Your task to perform on an android device: uninstall "YouTube Kids" Image 0: 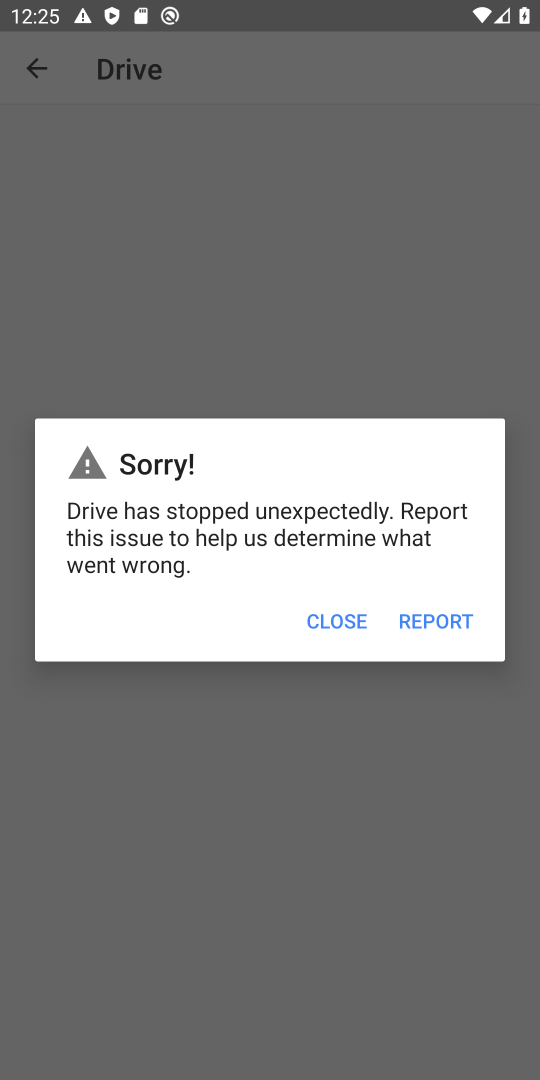
Step 0: press home button
Your task to perform on an android device: uninstall "YouTube Kids" Image 1: 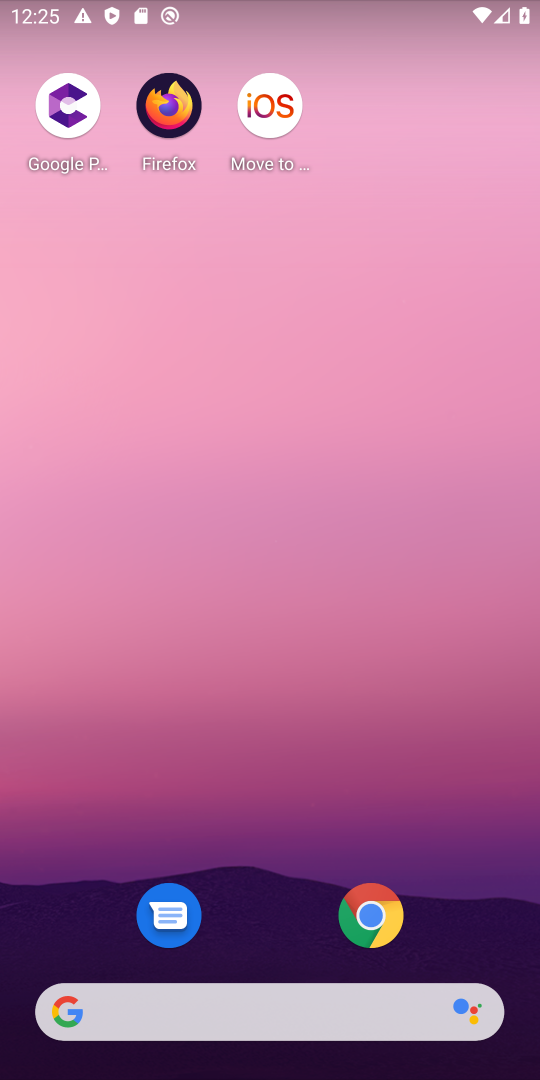
Step 1: drag from (256, 950) to (255, 271)
Your task to perform on an android device: uninstall "YouTube Kids" Image 2: 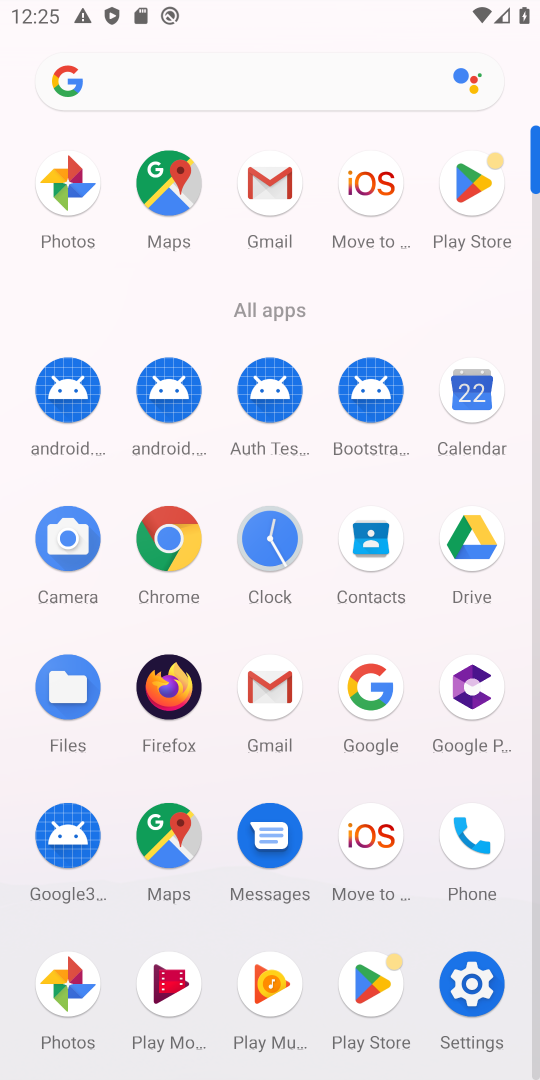
Step 2: click (363, 988)
Your task to perform on an android device: uninstall "YouTube Kids" Image 3: 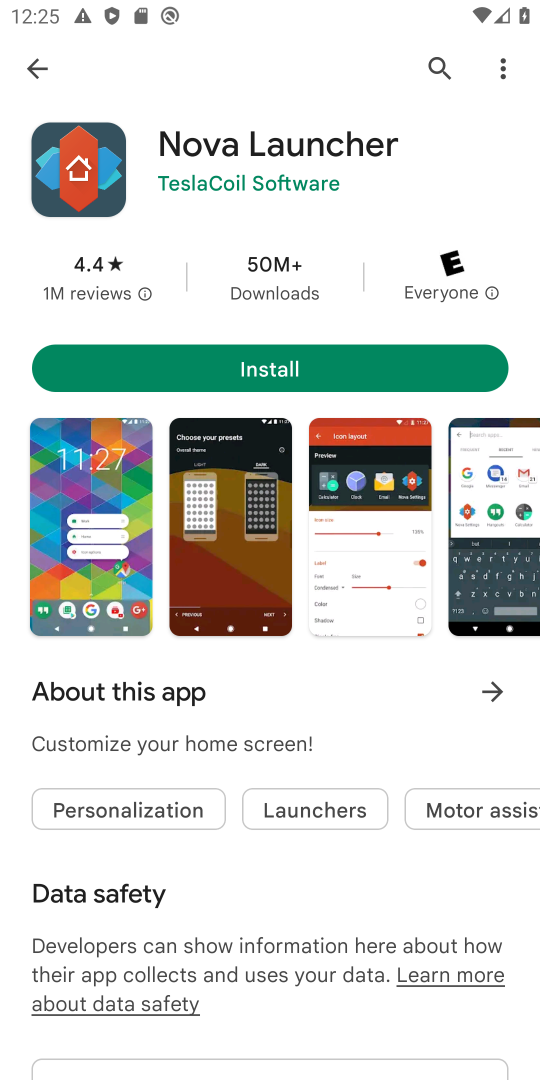
Step 3: click (42, 53)
Your task to perform on an android device: uninstall "YouTube Kids" Image 4: 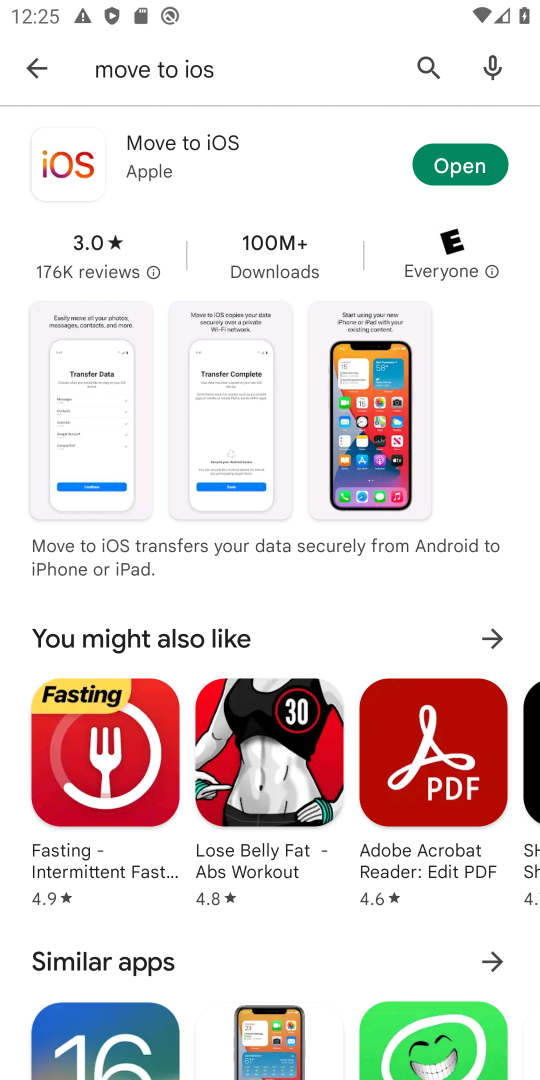
Step 4: click (430, 58)
Your task to perform on an android device: uninstall "YouTube Kids" Image 5: 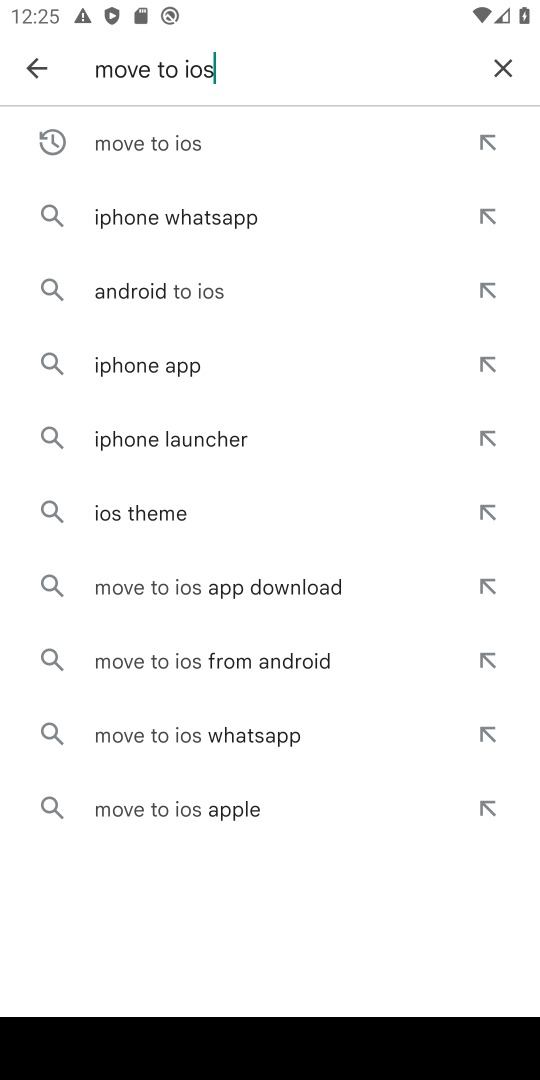
Step 5: click (504, 60)
Your task to perform on an android device: uninstall "YouTube Kids" Image 6: 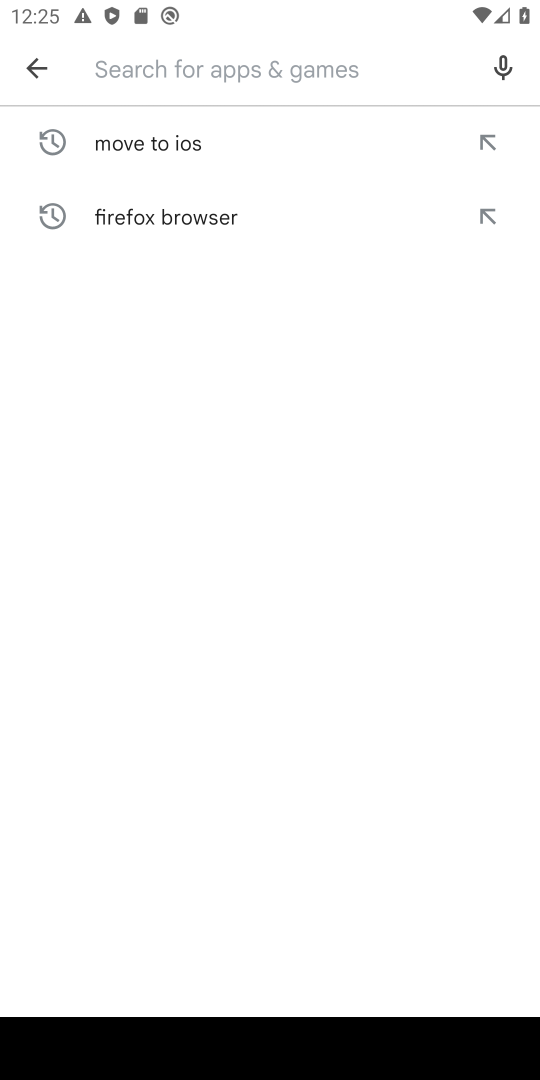
Step 6: type "YouTube Kids"
Your task to perform on an android device: uninstall "YouTube Kids" Image 7: 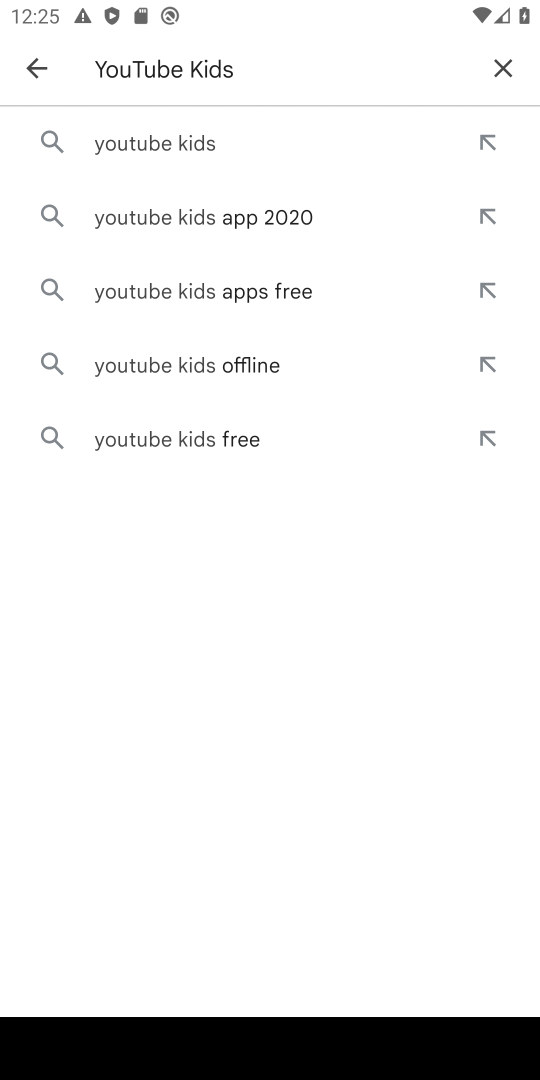
Step 7: click (107, 135)
Your task to perform on an android device: uninstall "YouTube Kids" Image 8: 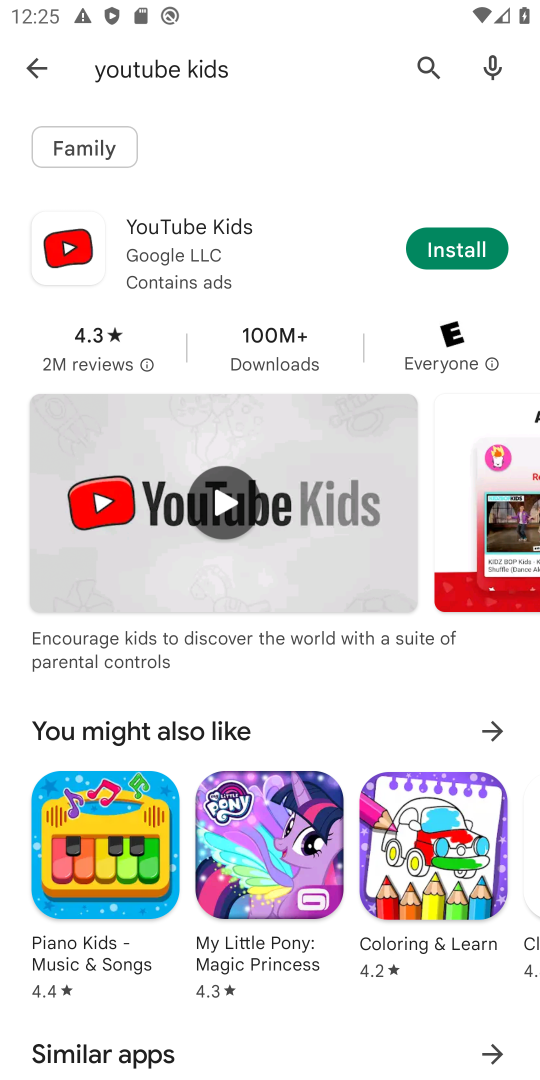
Step 8: task complete